Your task to perform on an android device: Go to Maps Image 0: 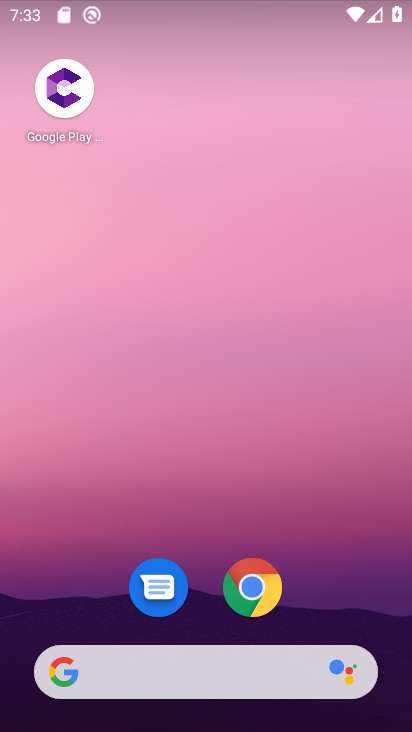
Step 0: drag from (64, 369) to (407, 498)
Your task to perform on an android device: Go to Maps Image 1: 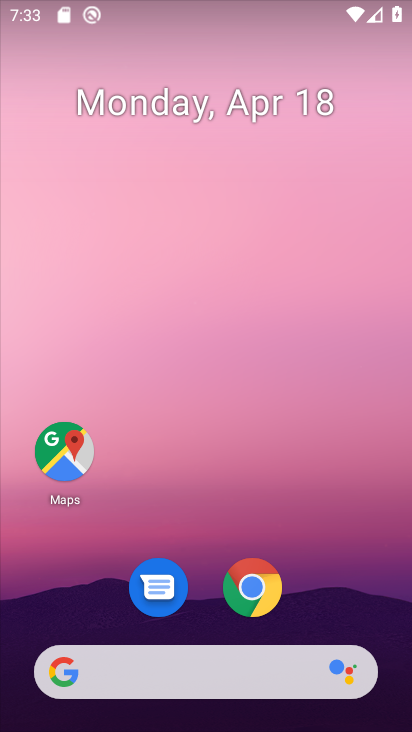
Step 1: click (56, 481)
Your task to perform on an android device: Go to Maps Image 2: 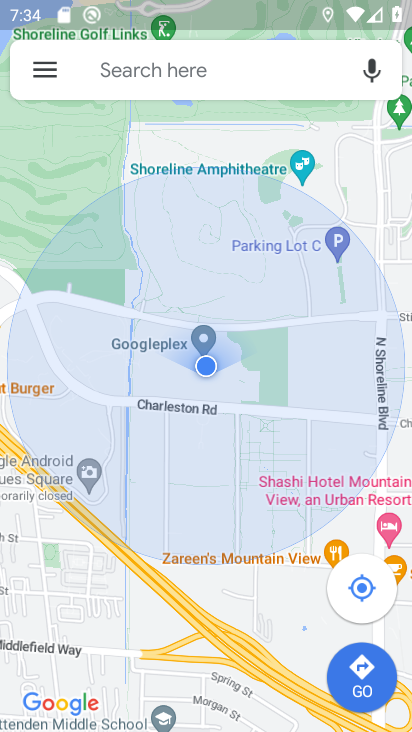
Step 2: task complete